Your task to perform on an android device: toggle data saver in the chrome app Image 0: 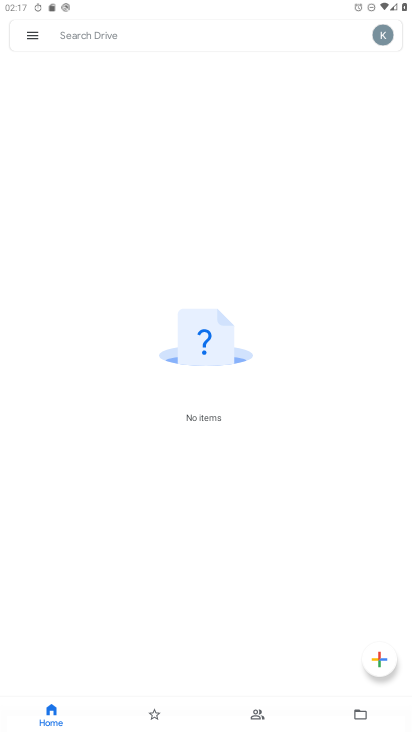
Step 0: press home button
Your task to perform on an android device: toggle data saver in the chrome app Image 1: 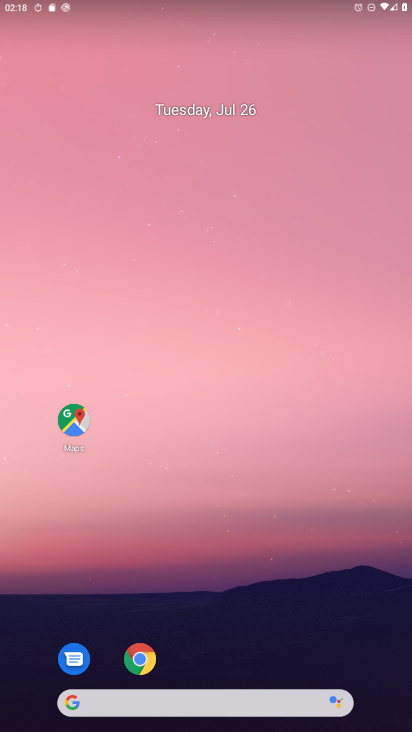
Step 1: click (154, 660)
Your task to perform on an android device: toggle data saver in the chrome app Image 2: 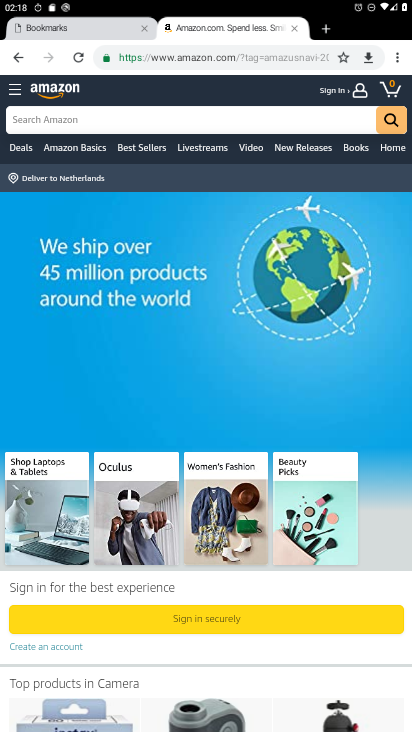
Step 2: drag from (394, 59) to (283, 420)
Your task to perform on an android device: toggle data saver in the chrome app Image 3: 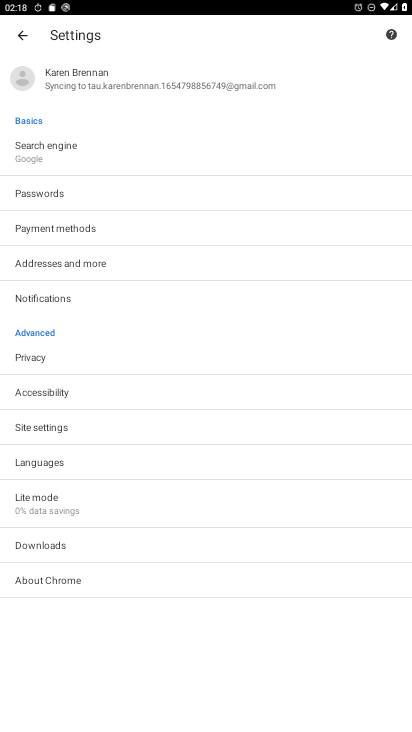
Step 3: click (59, 485)
Your task to perform on an android device: toggle data saver in the chrome app Image 4: 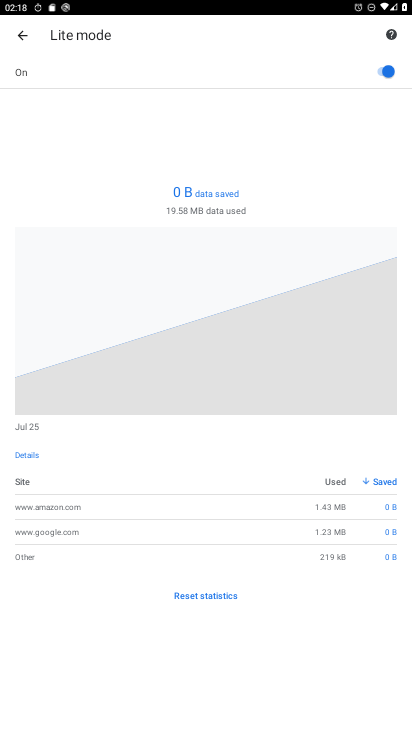
Step 4: click (341, 77)
Your task to perform on an android device: toggle data saver in the chrome app Image 5: 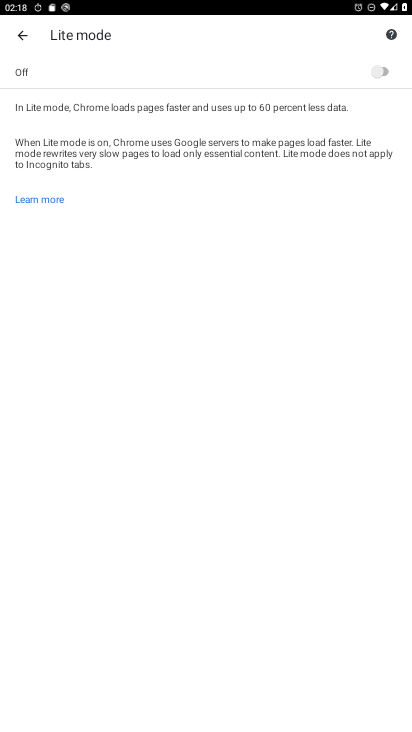
Step 5: task complete